Your task to perform on an android device: Go to Reddit.com Image 0: 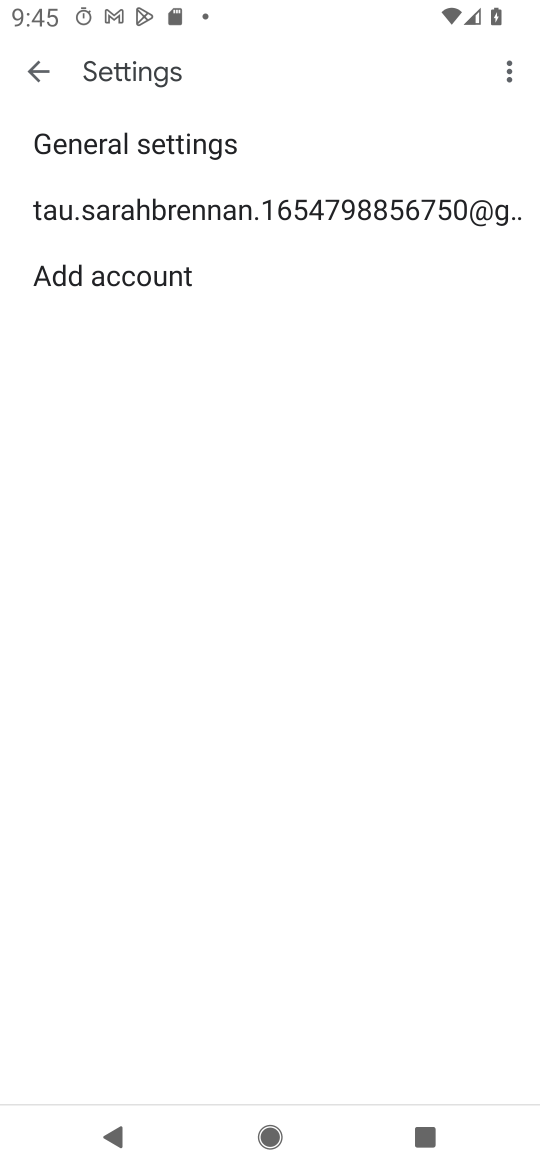
Step 0: press home button
Your task to perform on an android device: Go to Reddit.com Image 1: 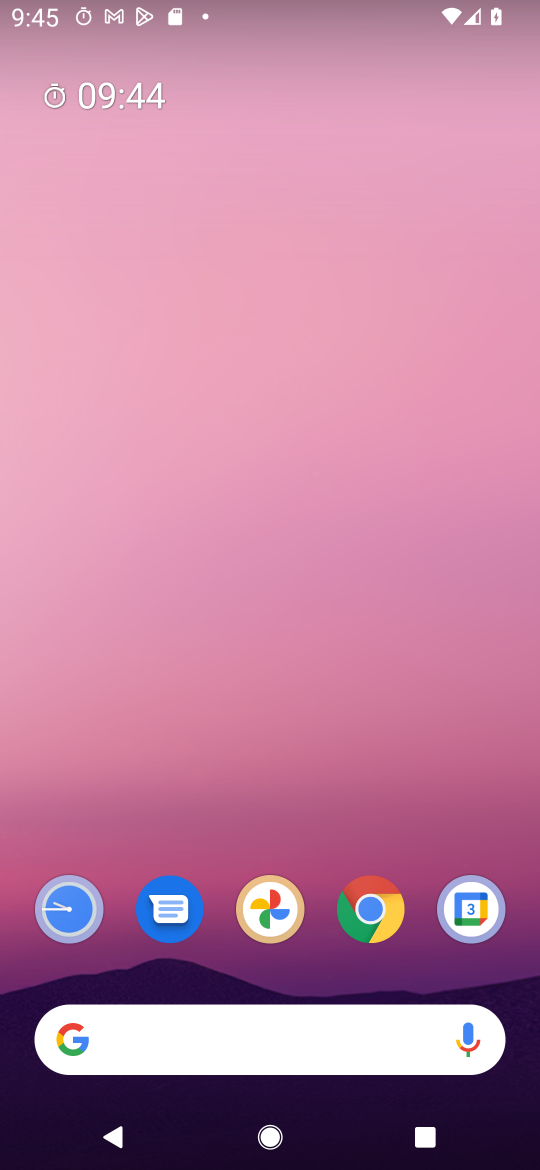
Step 1: drag from (285, 833) to (282, 316)
Your task to perform on an android device: Go to Reddit.com Image 2: 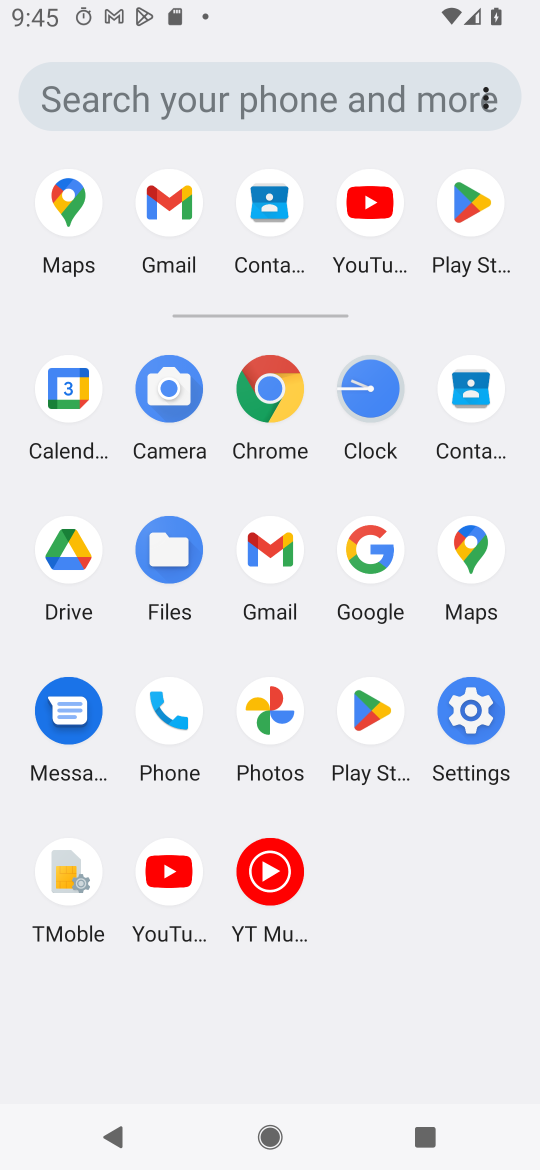
Step 2: click (274, 411)
Your task to perform on an android device: Go to Reddit.com Image 3: 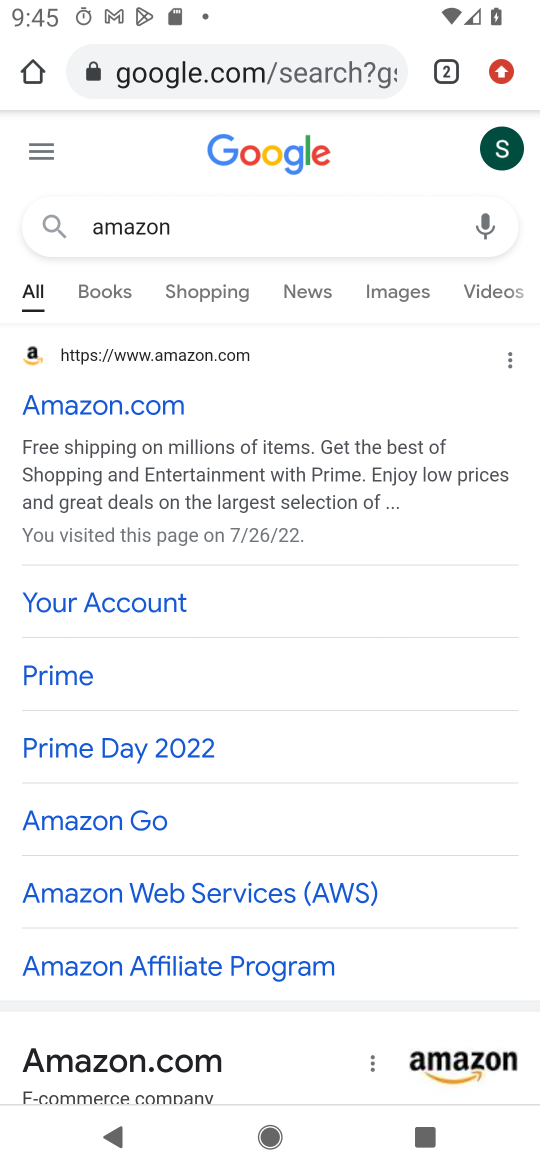
Step 3: click (340, 68)
Your task to perform on an android device: Go to Reddit.com Image 4: 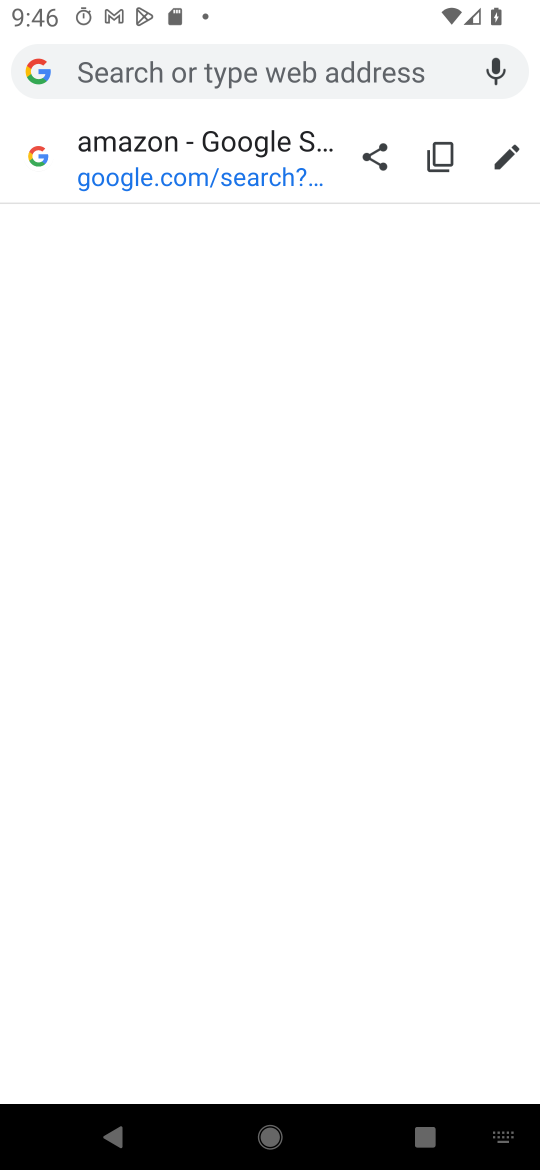
Step 4: type "reddit.com"
Your task to perform on an android device: Go to Reddit.com Image 5: 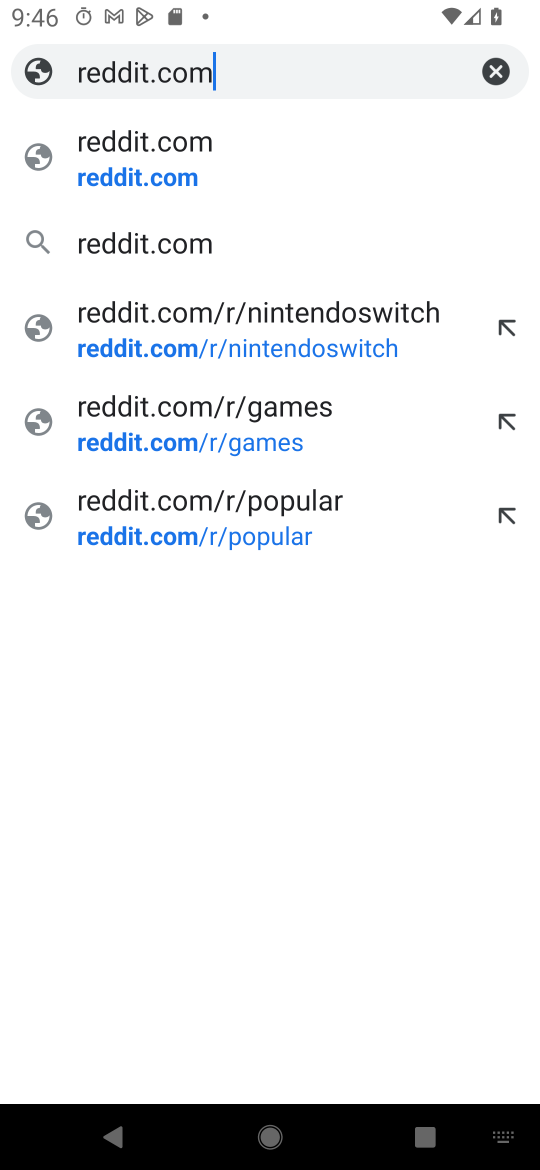
Step 5: click (186, 157)
Your task to perform on an android device: Go to Reddit.com Image 6: 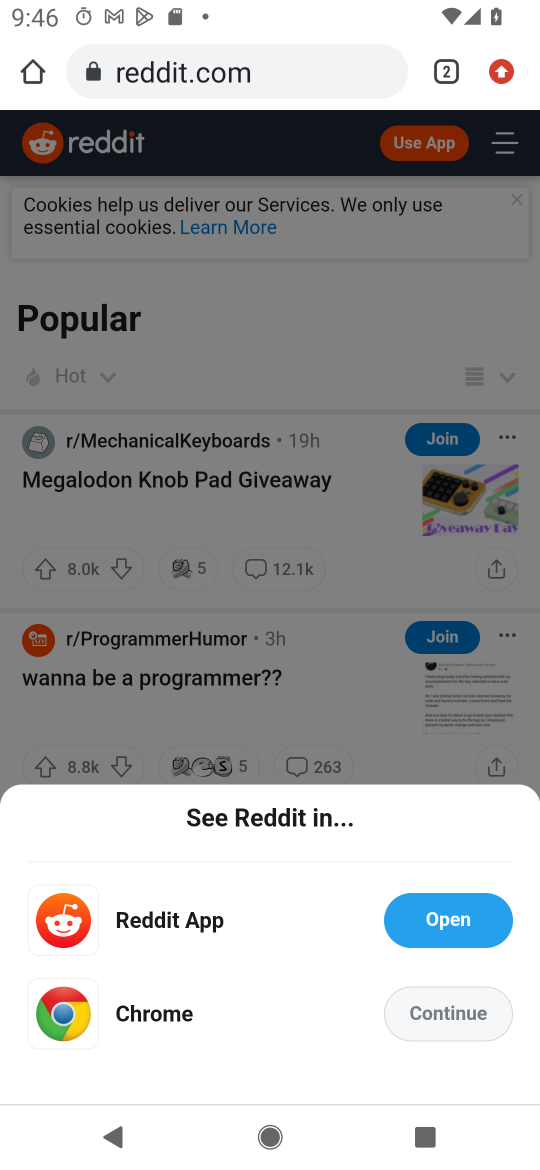
Step 6: task complete